Your task to perform on an android device: Go to privacy settings Image 0: 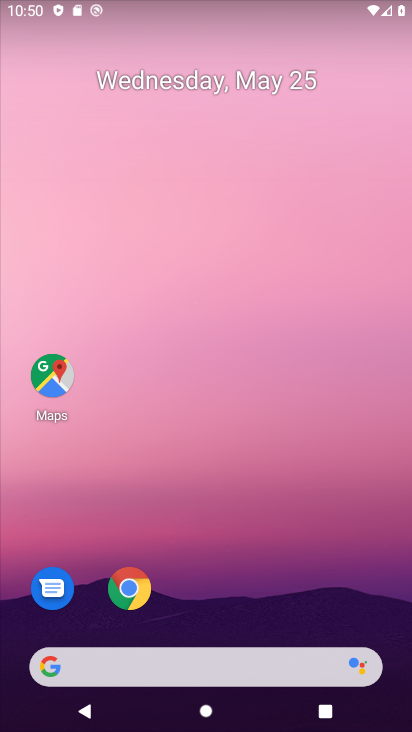
Step 0: drag from (257, 606) to (173, 87)
Your task to perform on an android device: Go to privacy settings Image 1: 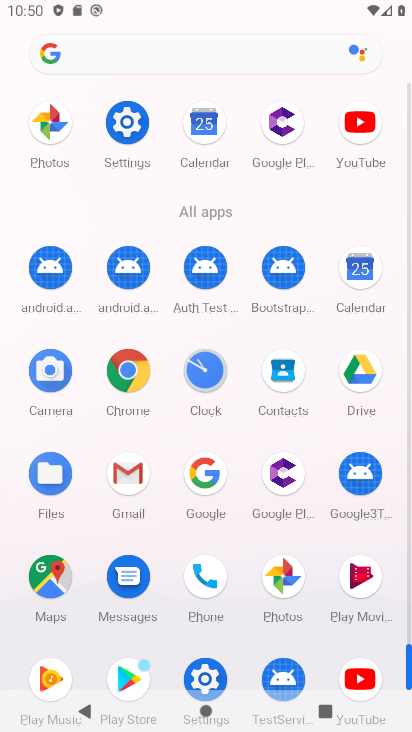
Step 1: click (128, 118)
Your task to perform on an android device: Go to privacy settings Image 2: 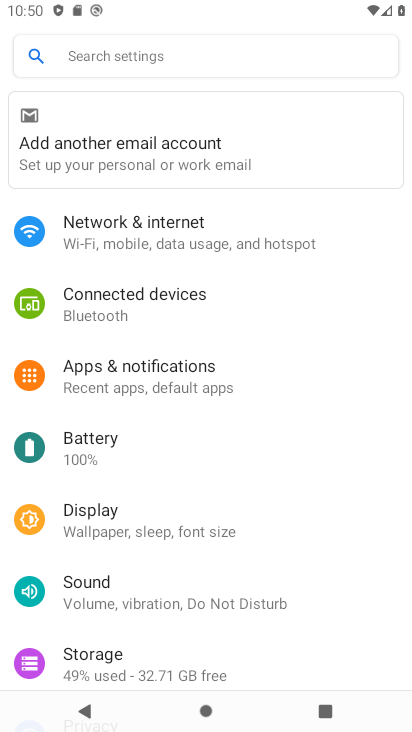
Step 2: drag from (155, 431) to (193, 320)
Your task to perform on an android device: Go to privacy settings Image 3: 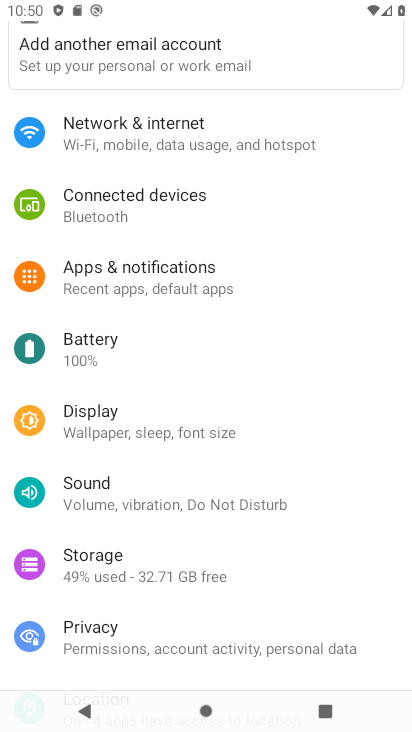
Step 3: drag from (146, 465) to (188, 377)
Your task to perform on an android device: Go to privacy settings Image 4: 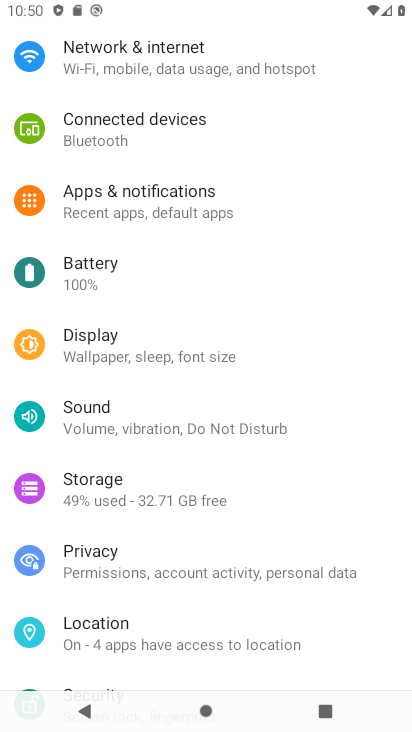
Step 4: click (145, 561)
Your task to perform on an android device: Go to privacy settings Image 5: 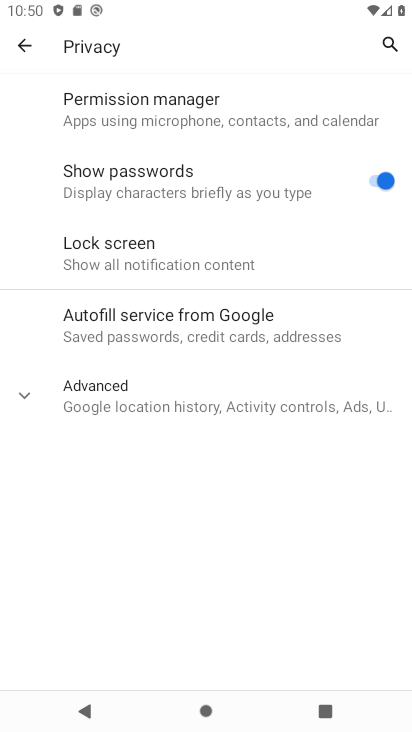
Step 5: task complete